Your task to perform on an android device: What is the recent news? Image 0: 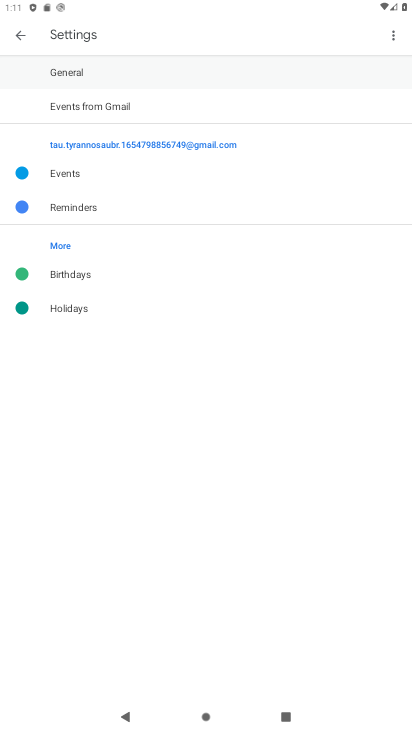
Step 0: press home button
Your task to perform on an android device: What is the recent news? Image 1: 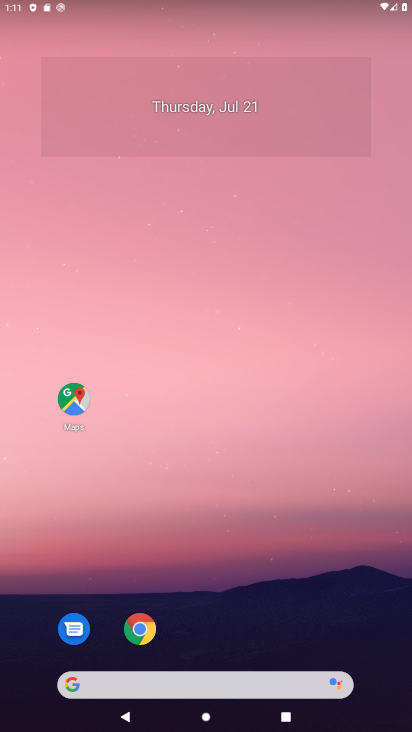
Step 1: click (135, 691)
Your task to perform on an android device: What is the recent news? Image 2: 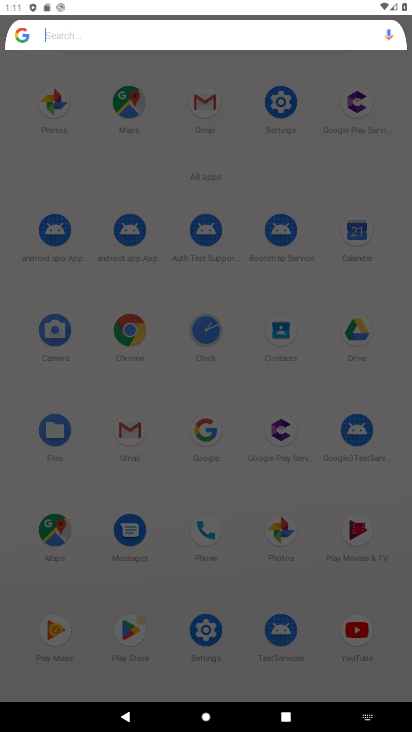
Step 2: click (85, 42)
Your task to perform on an android device: What is the recent news? Image 3: 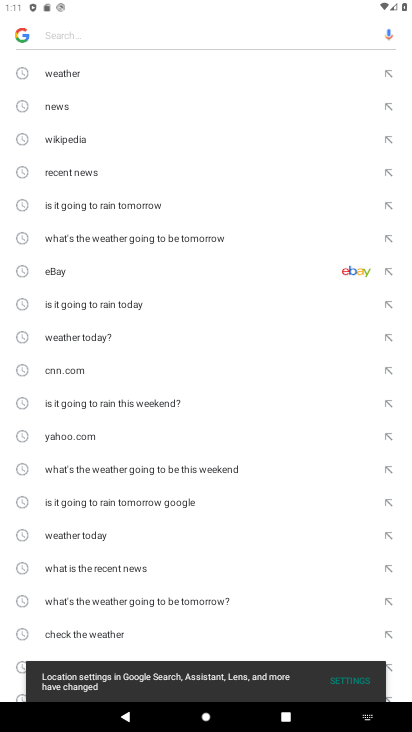
Step 3: type "What is the recent news?"
Your task to perform on an android device: What is the recent news? Image 4: 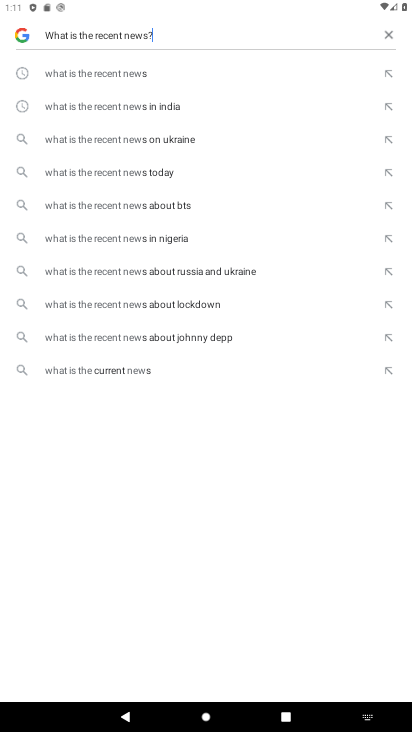
Step 4: type ""
Your task to perform on an android device: What is the recent news? Image 5: 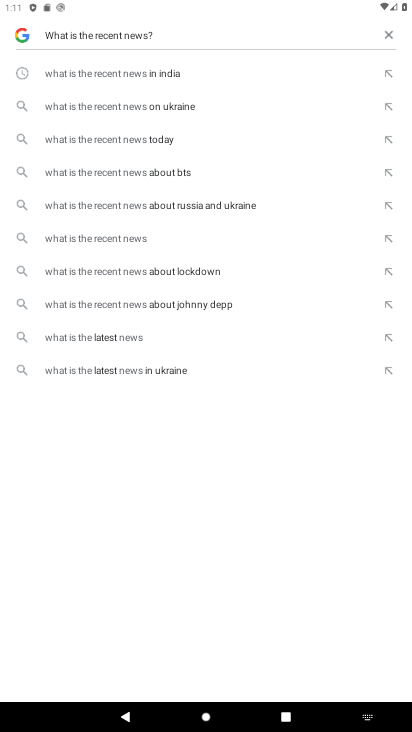
Step 5: type ""
Your task to perform on an android device: What is the recent news? Image 6: 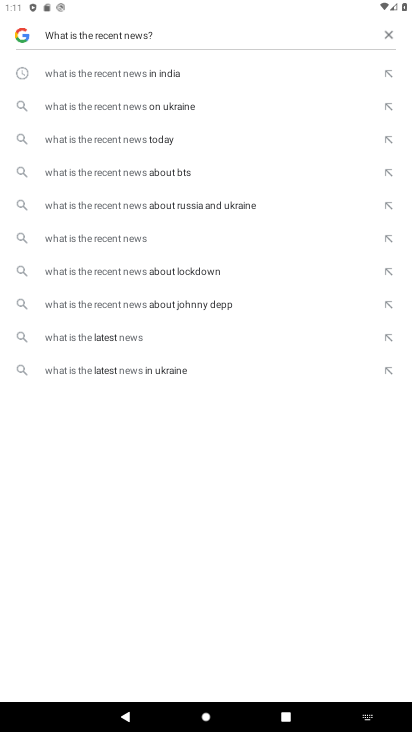
Step 6: type ""
Your task to perform on an android device: What is the recent news? Image 7: 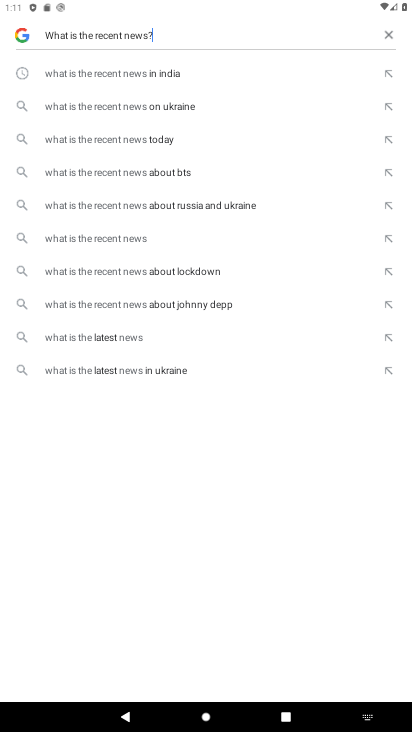
Step 7: task complete